Your task to perform on an android device: Is it going to rain today? Image 0: 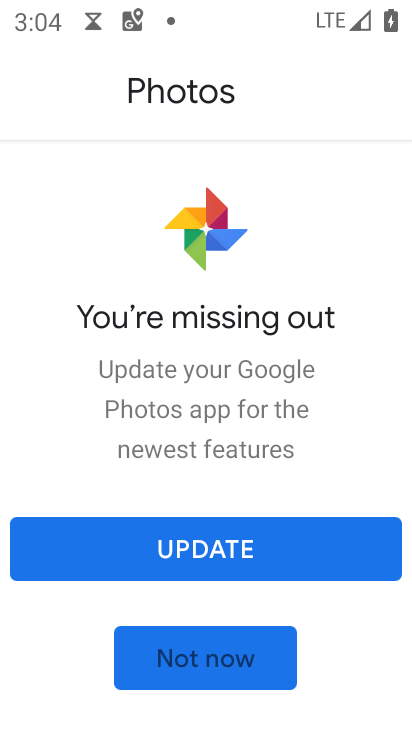
Step 0: press home button
Your task to perform on an android device: Is it going to rain today? Image 1: 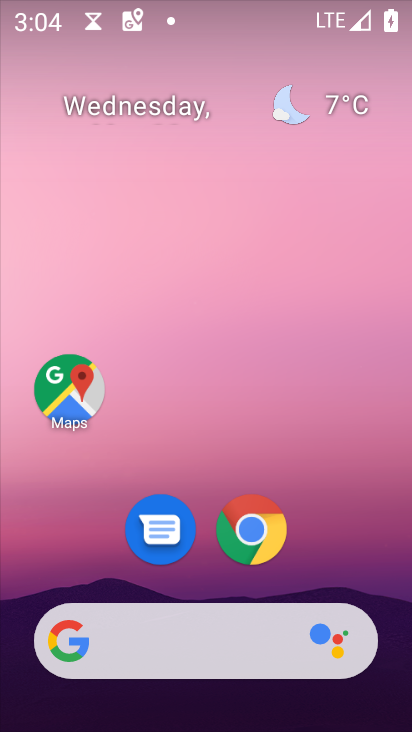
Step 1: click (354, 72)
Your task to perform on an android device: Is it going to rain today? Image 2: 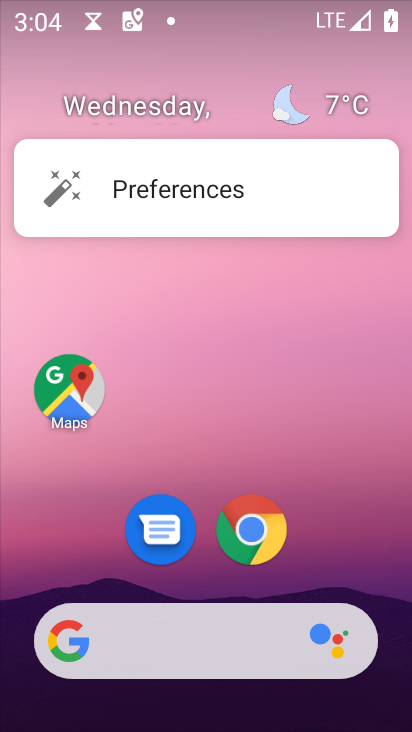
Step 2: click (353, 100)
Your task to perform on an android device: Is it going to rain today? Image 3: 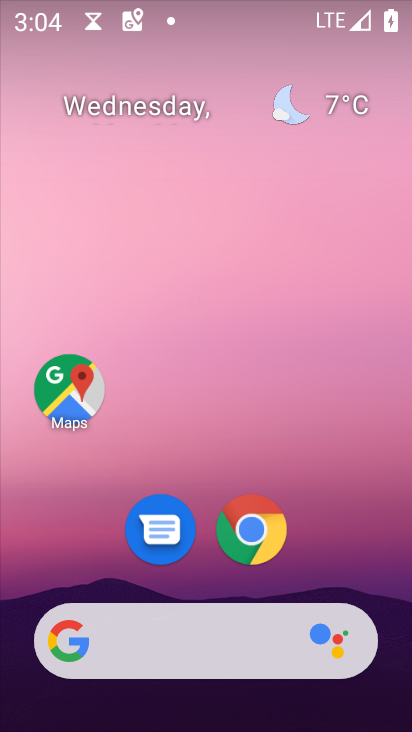
Step 3: click (345, 87)
Your task to perform on an android device: Is it going to rain today? Image 4: 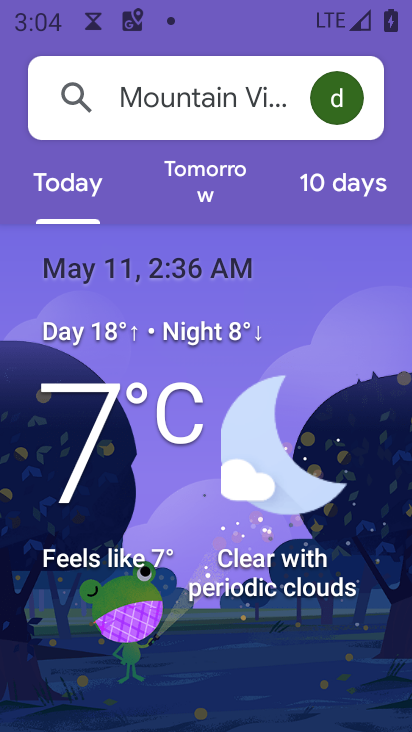
Step 4: task complete